Your task to perform on an android device: open a bookmark in the chrome app Image 0: 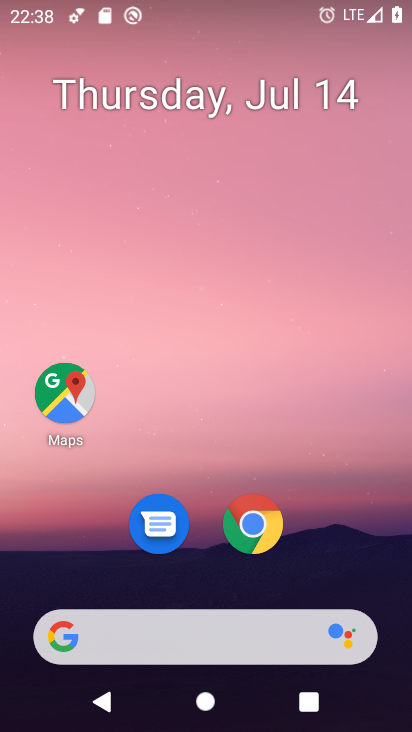
Step 0: click (257, 523)
Your task to perform on an android device: open a bookmark in the chrome app Image 1: 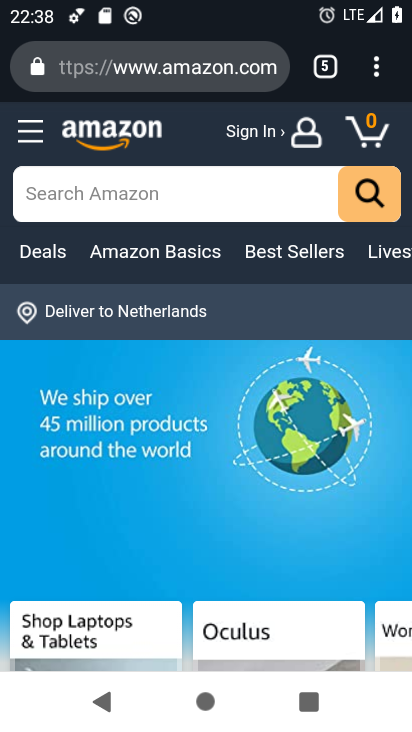
Step 1: click (381, 70)
Your task to perform on an android device: open a bookmark in the chrome app Image 2: 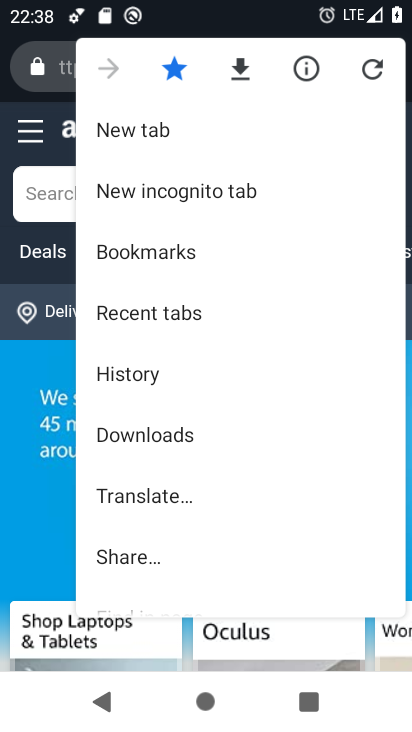
Step 2: click (198, 252)
Your task to perform on an android device: open a bookmark in the chrome app Image 3: 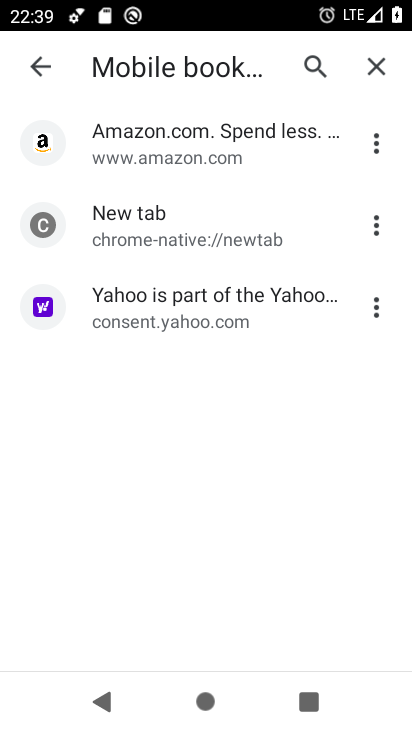
Step 3: click (197, 291)
Your task to perform on an android device: open a bookmark in the chrome app Image 4: 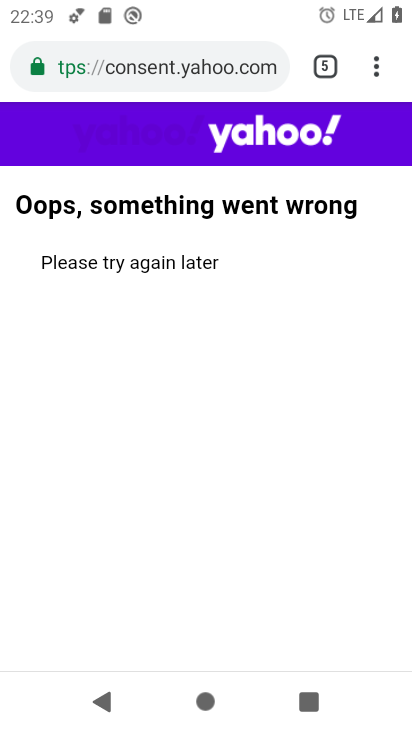
Step 4: task complete